Your task to perform on an android device: Go to Google maps Image 0: 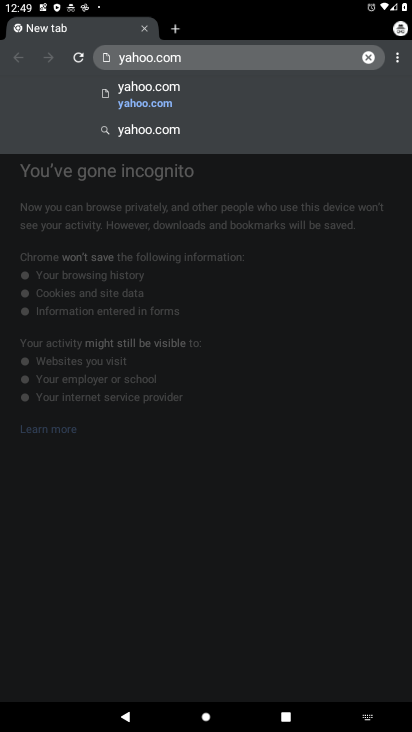
Step 0: press home button
Your task to perform on an android device: Go to Google maps Image 1: 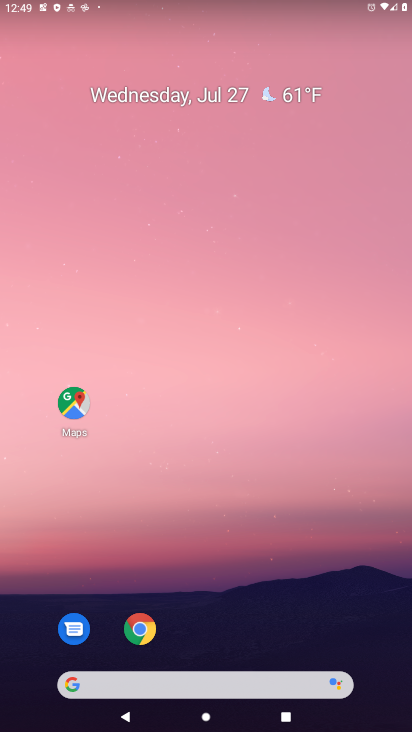
Step 1: click (70, 389)
Your task to perform on an android device: Go to Google maps Image 2: 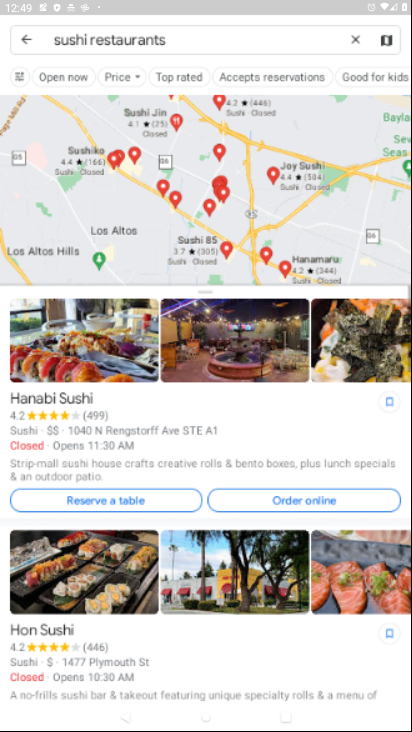
Step 2: task complete